Your task to perform on an android device: change the clock style Image 0: 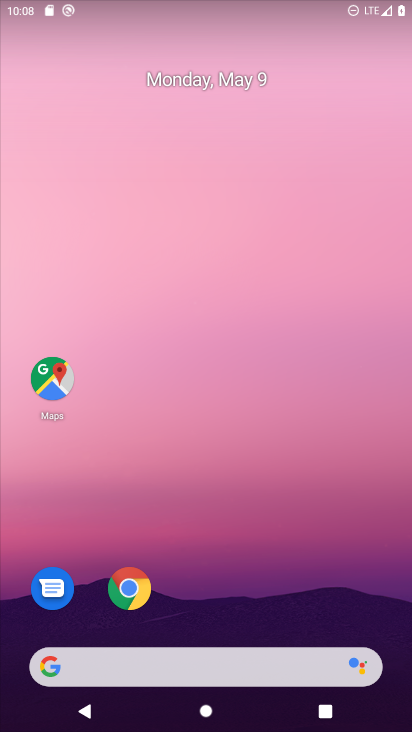
Step 0: drag from (323, 468) to (325, 80)
Your task to perform on an android device: change the clock style Image 1: 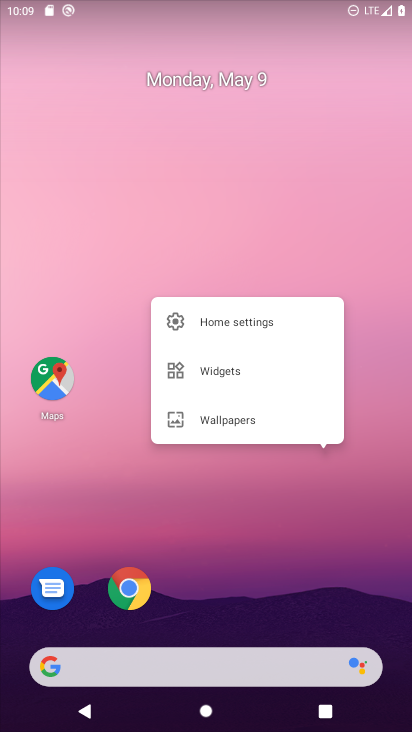
Step 1: click (284, 607)
Your task to perform on an android device: change the clock style Image 2: 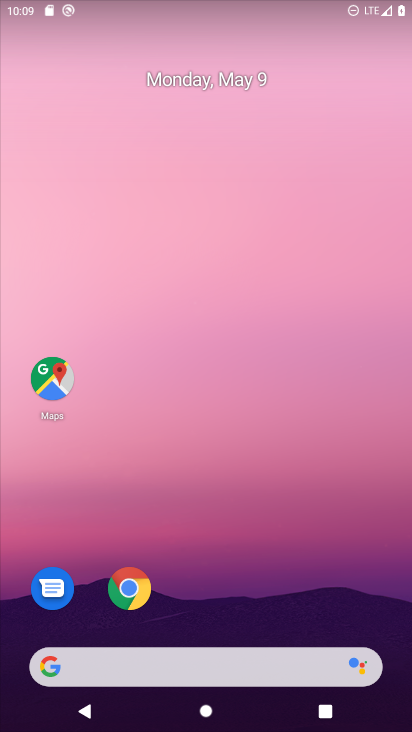
Step 2: drag from (284, 607) to (229, 66)
Your task to perform on an android device: change the clock style Image 3: 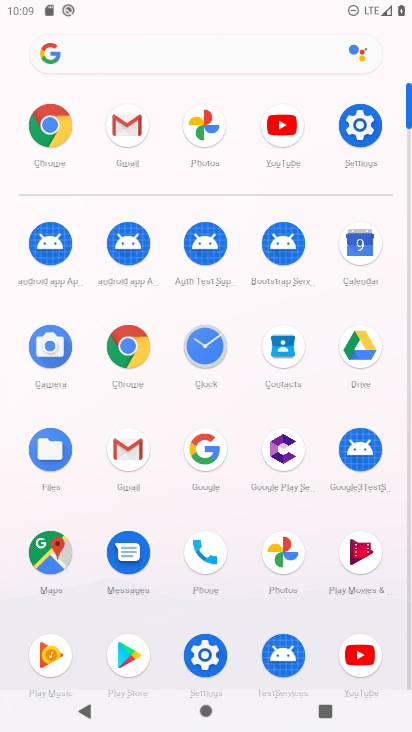
Step 3: click (208, 329)
Your task to perform on an android device: change the clock style Image 4: 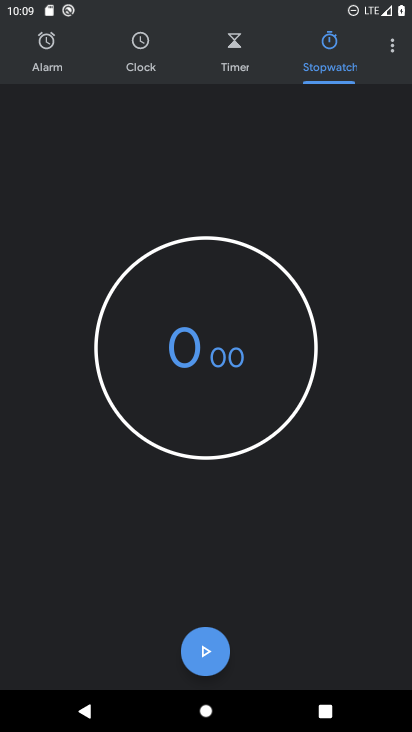
Step 4: click (395, 53)
Your task to perform on an android device: change the clock style Image 5: 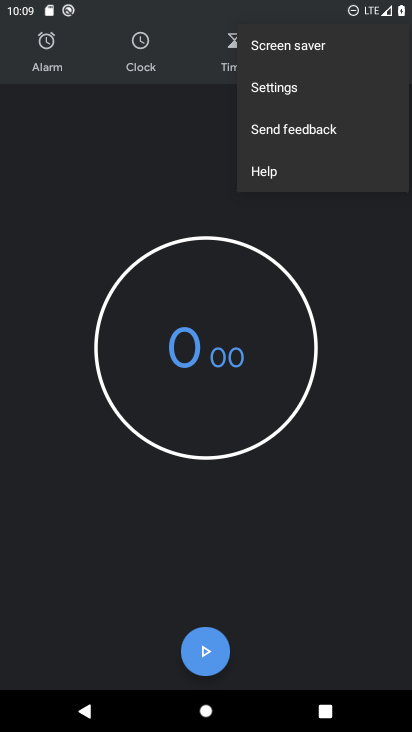
Step 5: click (326, 100)
Your task to perform on an android device: change the clock style Image 6: 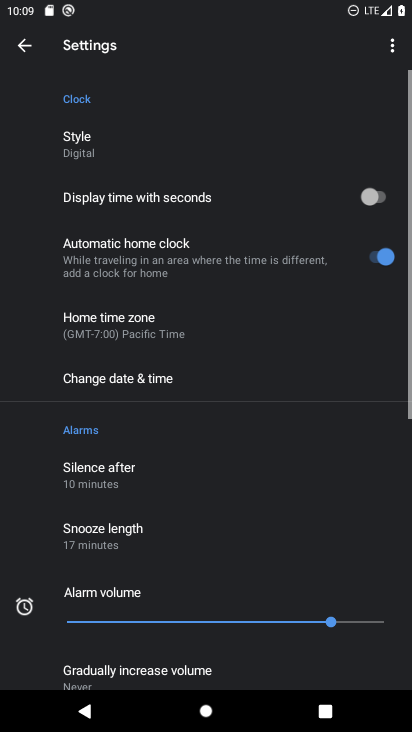
Step 6: click (143, 138)
Your task to perform on an android device: change the clock style Image 7: 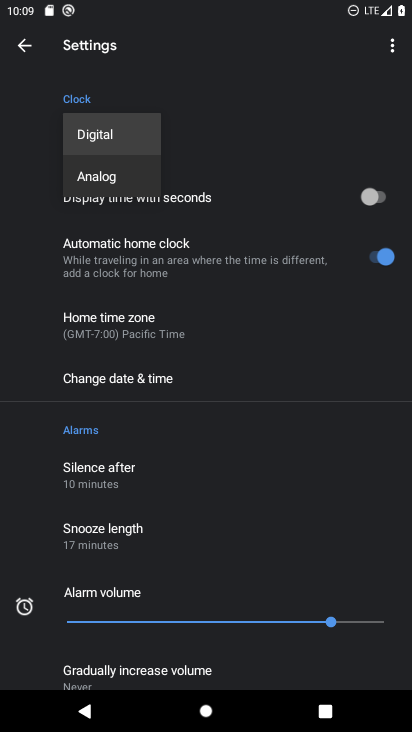
Step 7: click (121, 169)
Your task to perform on an android device: change the clock style Image 8: 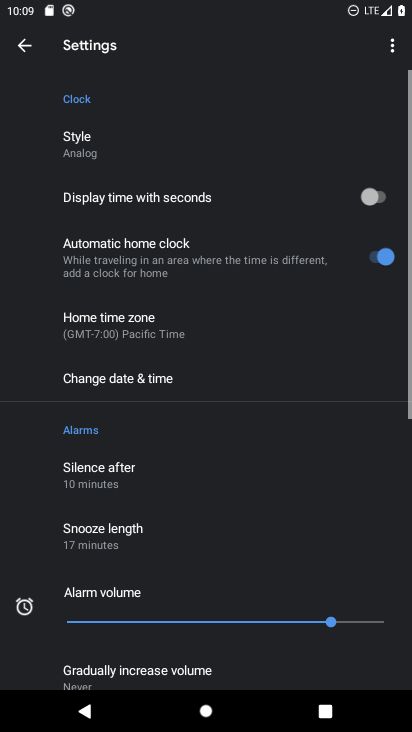
Step 8: task complete